Your task to perform on an android device: Search for pizza restaurants on Maps Image 0: 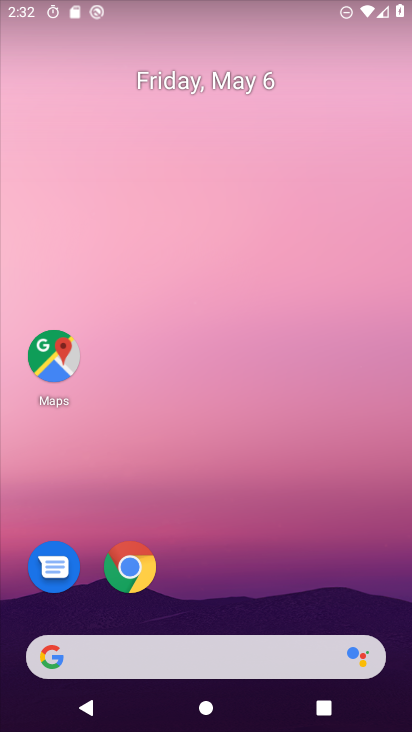
Step 0: drag from (266, 661) to (349, 186)
Your task to perform on an android device: Search for pizza restaurants on Maps Image 1: 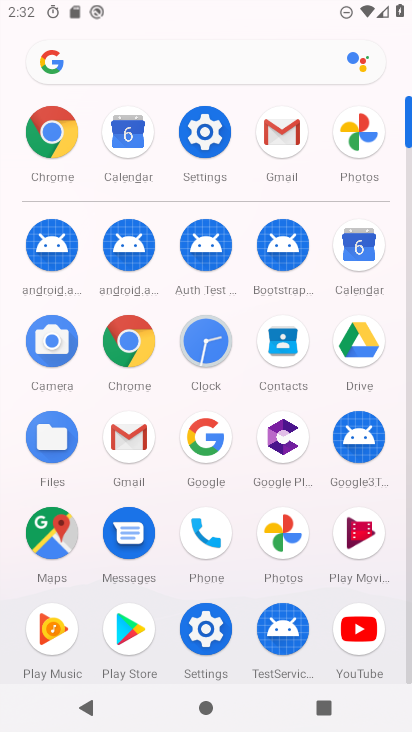
Step 1: click (31, 522)
Your task to perform on an android device: Search for pizza restaurants on Maps Image 2: 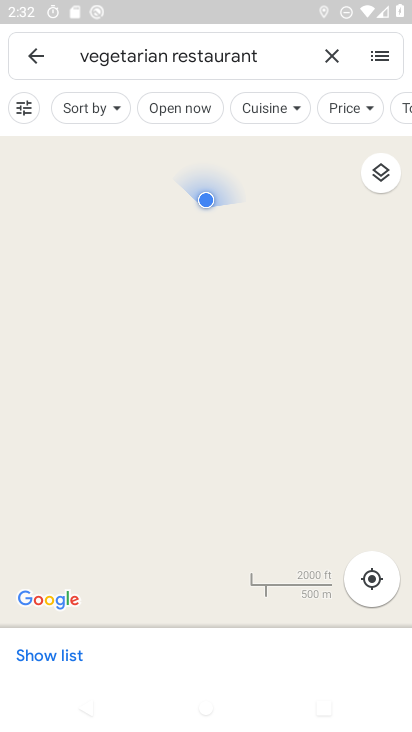
Step 2: click (324, 60)
Your task to perform on an android device: Search for pizza restaurants on Maps Image 3: 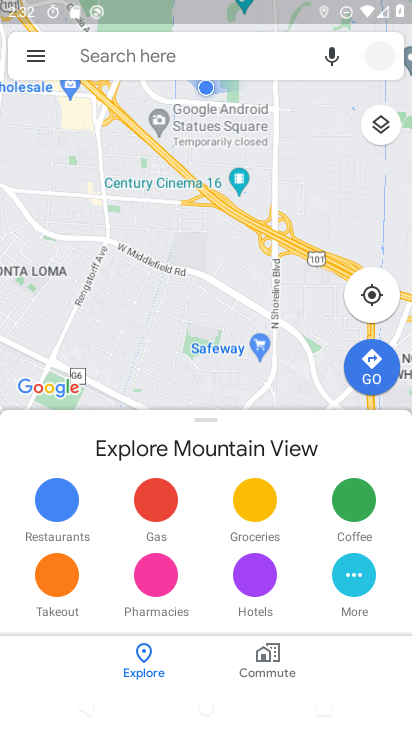
Step 3: click (144, 54)
Your task to perform on an android device: Search for pizza restaurants on Maps Image 4: 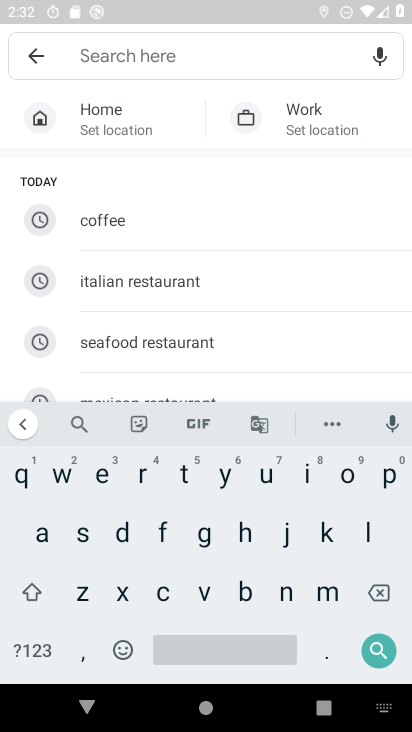
Step 4: click (386, 484)
Your task to perform on an android device: Search for pizza restaurants on Maps Image 5: 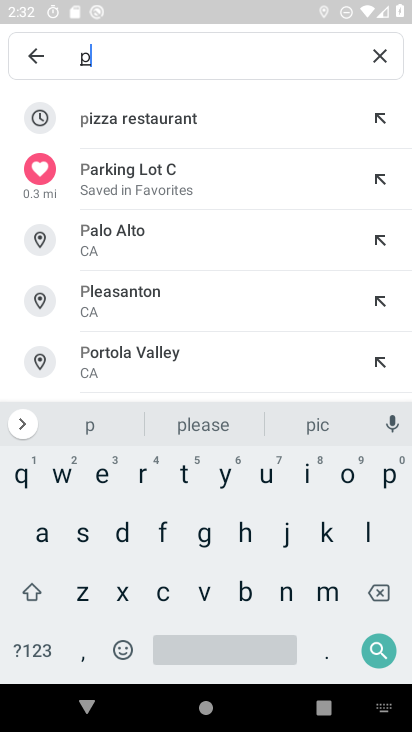
Step 5: click (308, 478)
Your task to perform on an android device: Search for pizza restaurants on Maps Image 6: 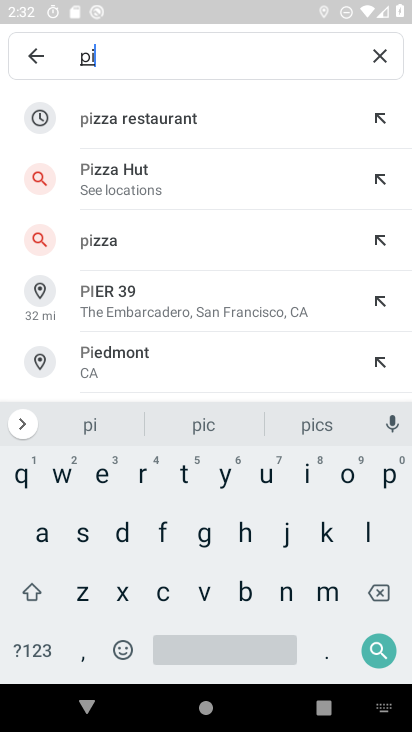
Step 6: click (171, 132)
Your task to perform on an android device: Search for pizza restaurants on Maps Image 7: 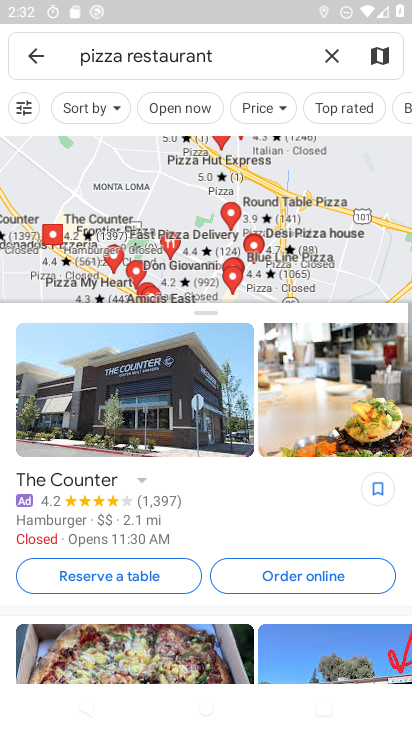
Step 7: click (148, 210)
Your task to perform on an android device: Search for pizza restaurants on Maps Image 8: 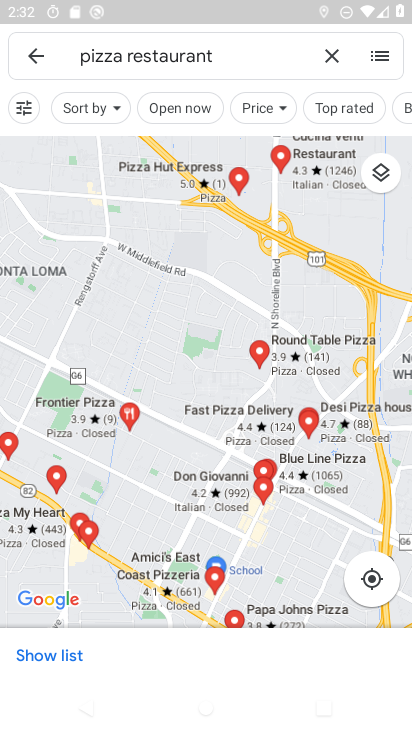
Step 8: task complete